Your task to perform on an android device: Open the map Image 0: 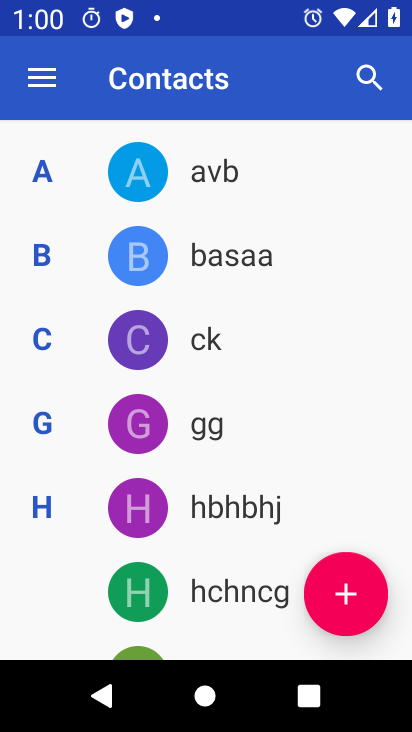
Step 0: press home button
Your task to perform on an android device: Open the map Image 1: 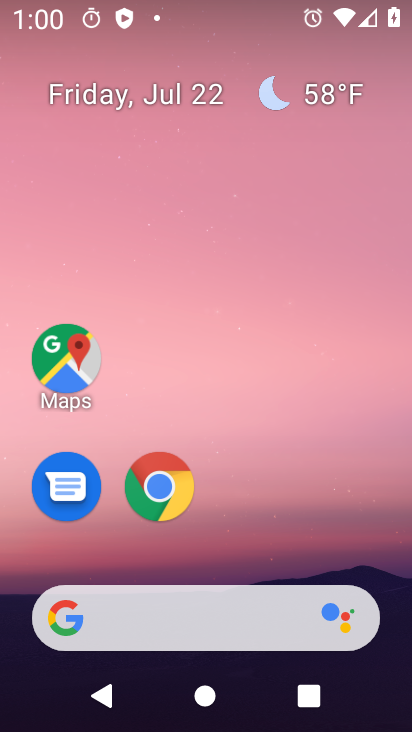
Step 1: drag from (318, 529) to (328, 117)
Your task to perform on an android device: Open the map Image 2: 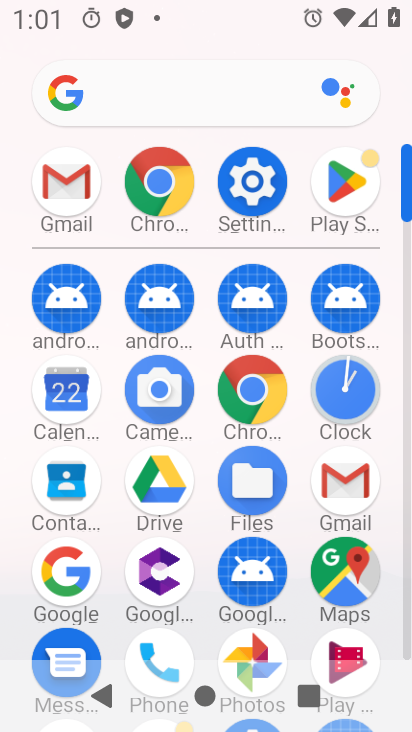
Step 2: drag from (389, 396) to (399, 253)
Your task to perform on an android device: Open the map Image 3: 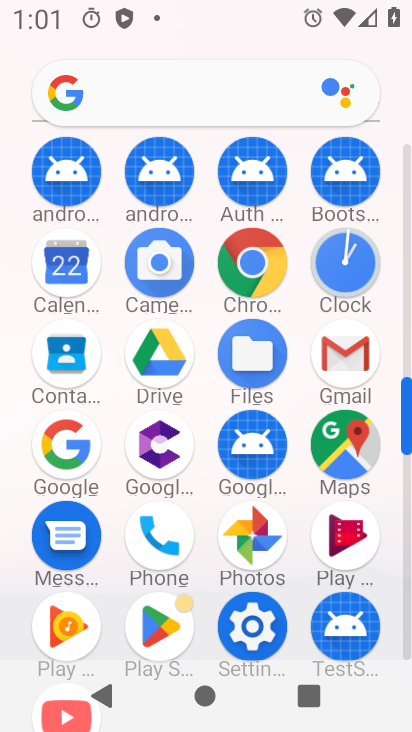
Step 3: click (330, 431)
Your task to perform on an android device: Open the map Image 4: 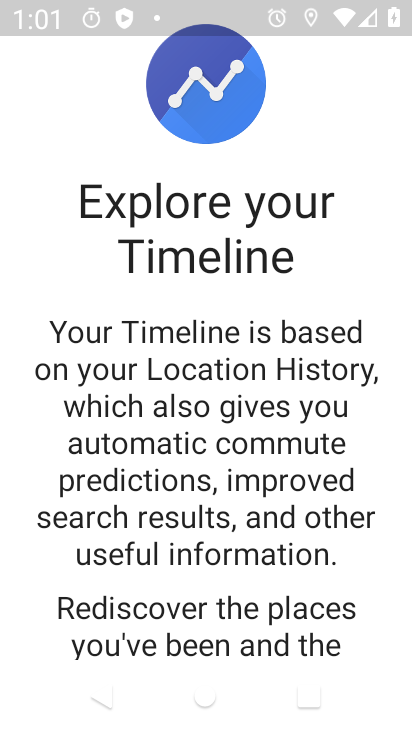
Step 4: task complete